Your task to perform on an android device: Add apple airpods pro to the cart on walmart, then select checkout. Image 0: 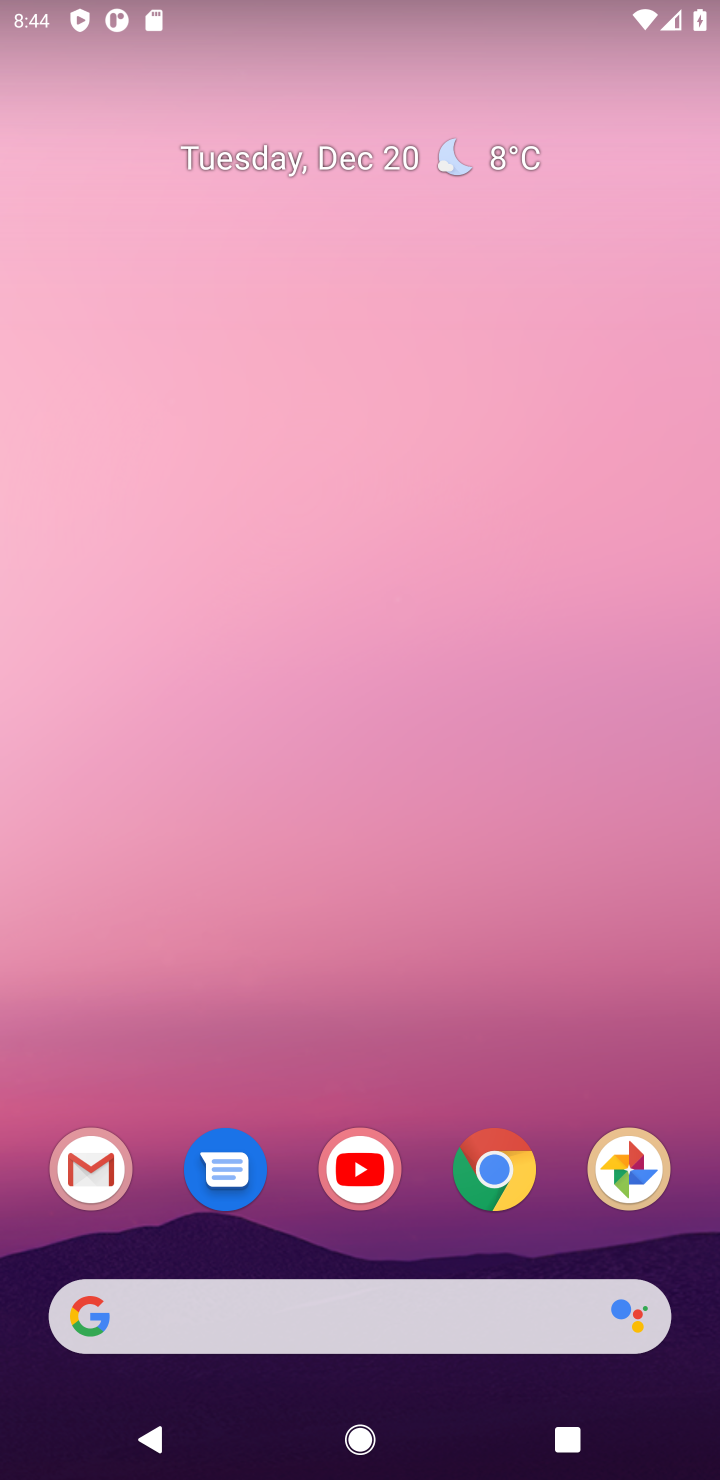
Step 0: click (501, 1146)
Your task to perform on an android device: Add apple airpods pro to the cart on walmart, then select checkout. Image 1: 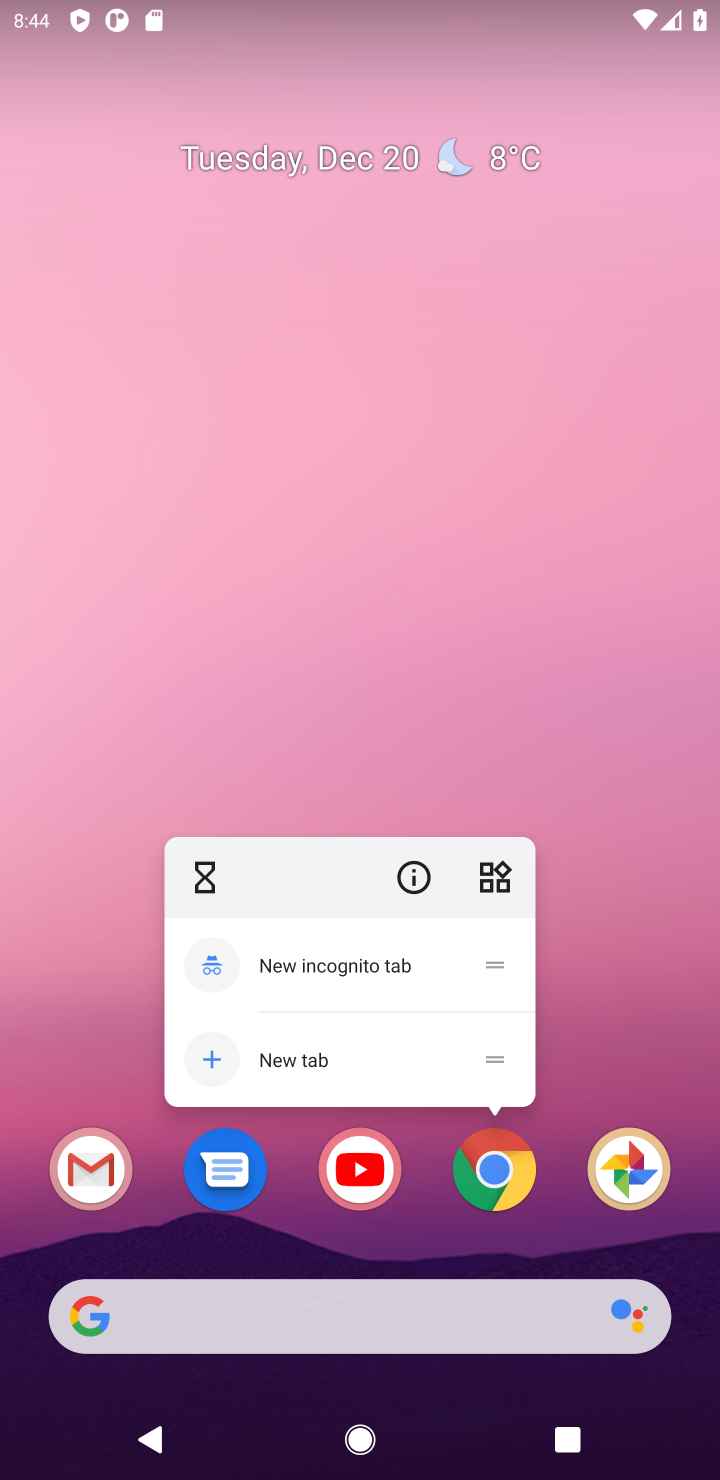
Step 1: click (484, 1200)
Your task to perform on an android device: Add apple airpods pro to the cart on walmart, then select checkout. Image 2: 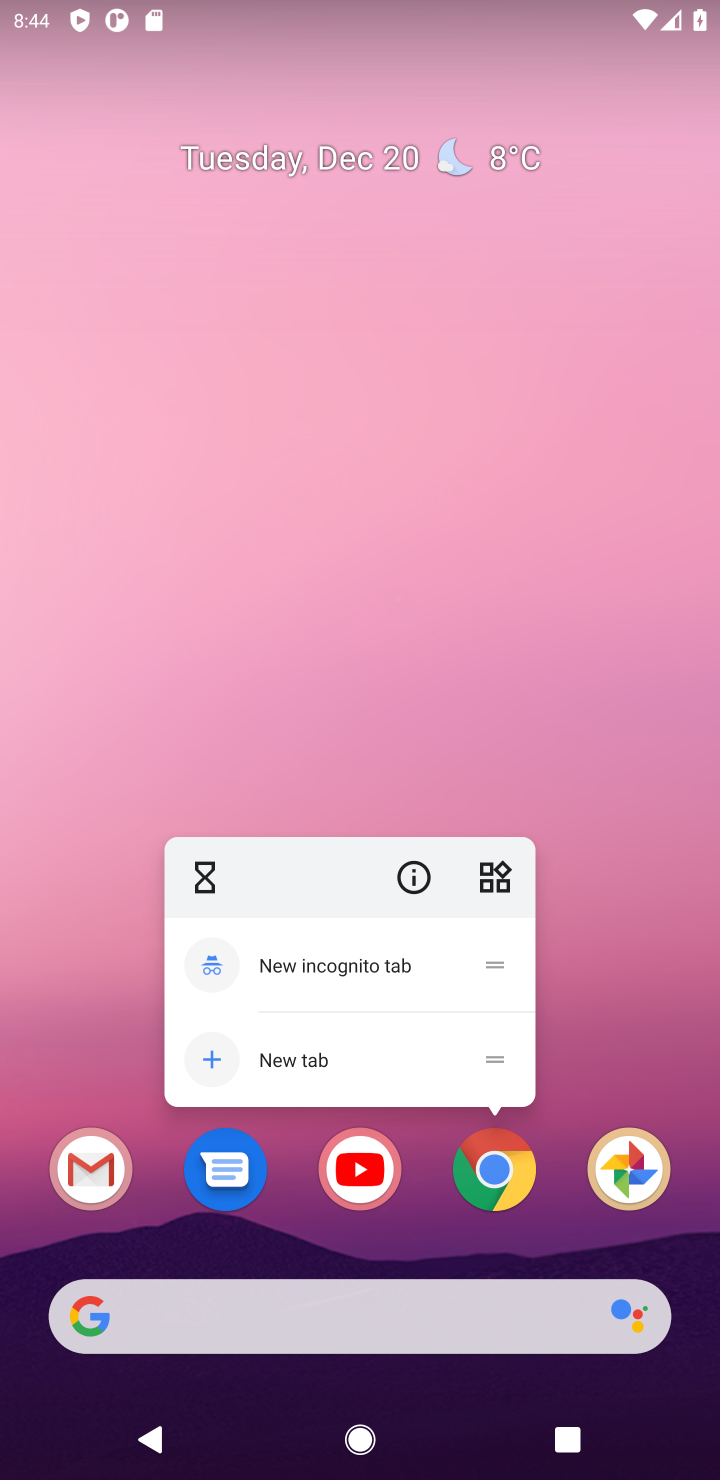
Step 2: click (484, 1200)
Your task to perform on an android device: Add apple airpods pro to the cart on walmart, then select checkout. Image 3: 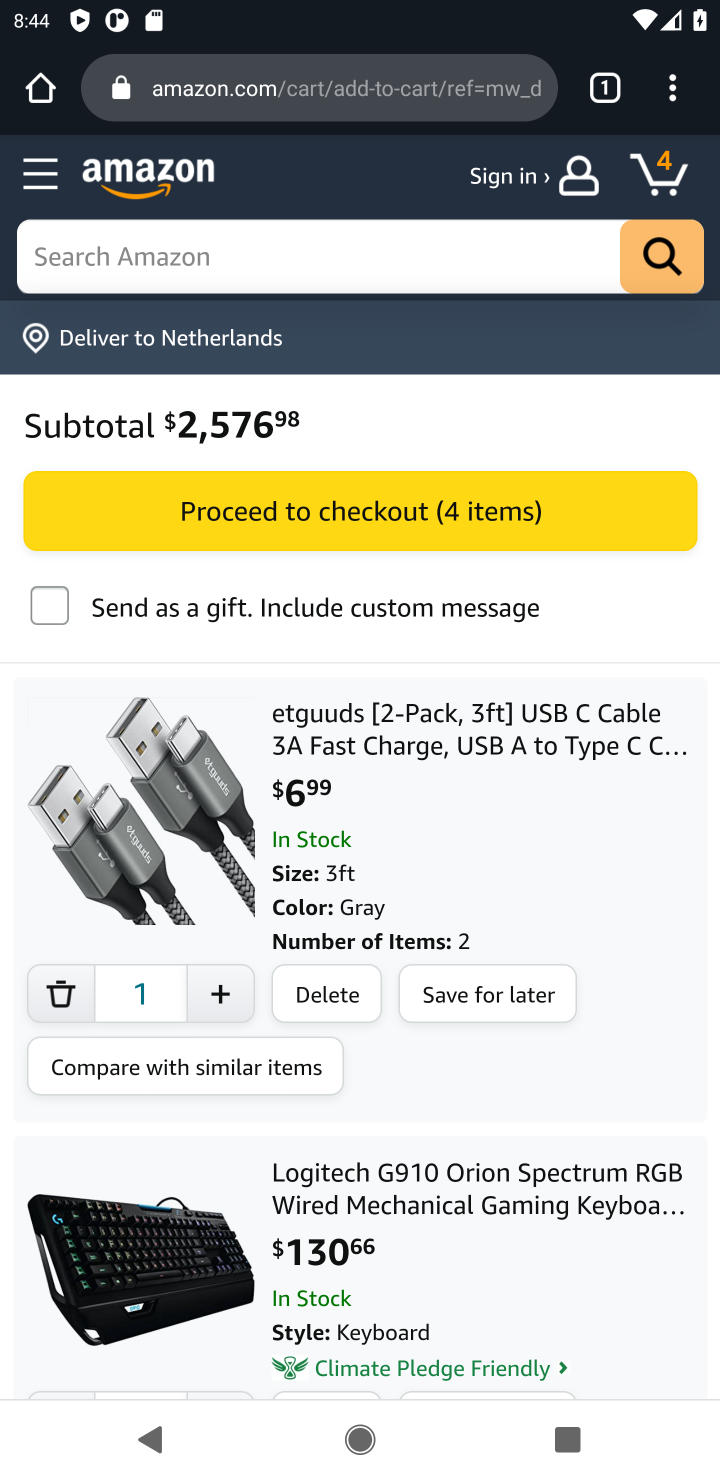
Step 3: click (289, 96)
Your task to perform on an android device: Add apple airpods pro to the cart on walmart, then select checkout. Image 4: 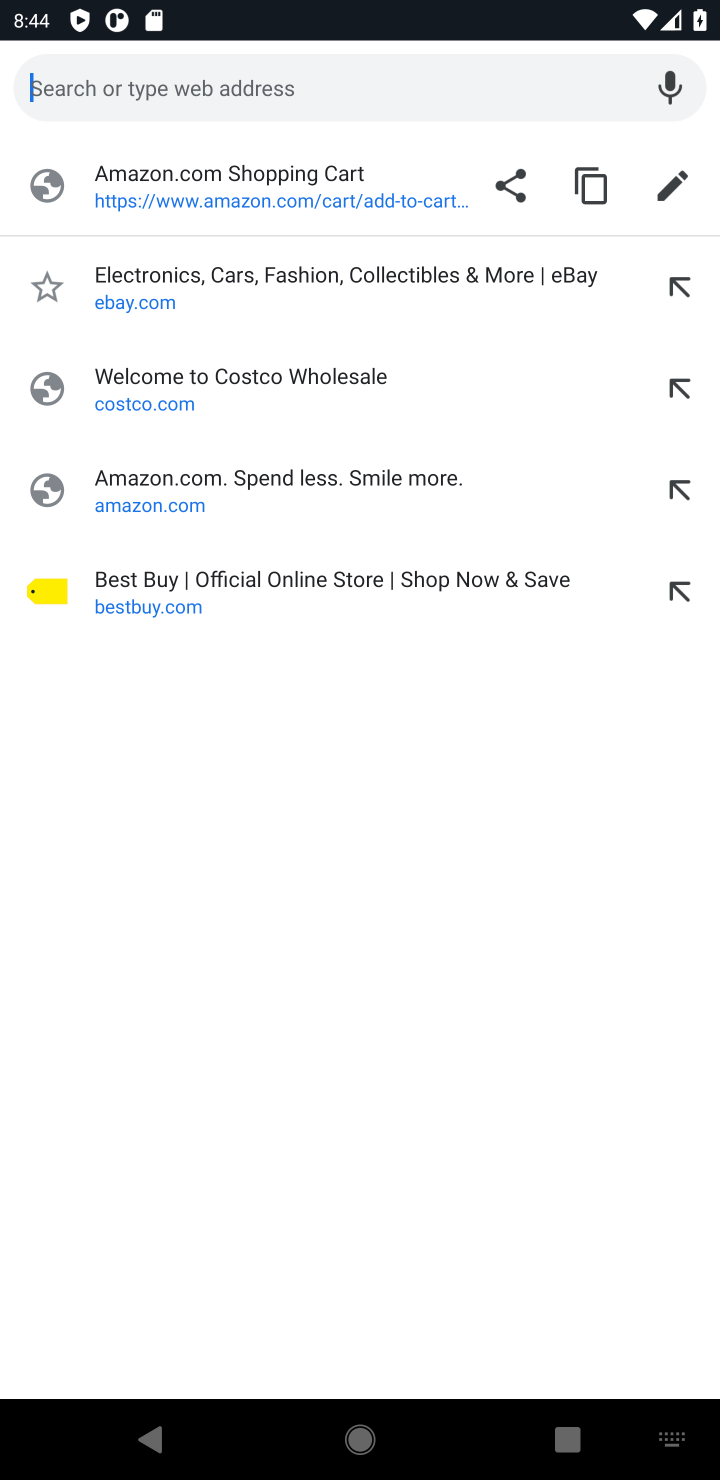
Step 4: type "walmart"
Your task to perform on an android device: Add apple airpods pro to the cart on walmart, then select checkout. Image 5: 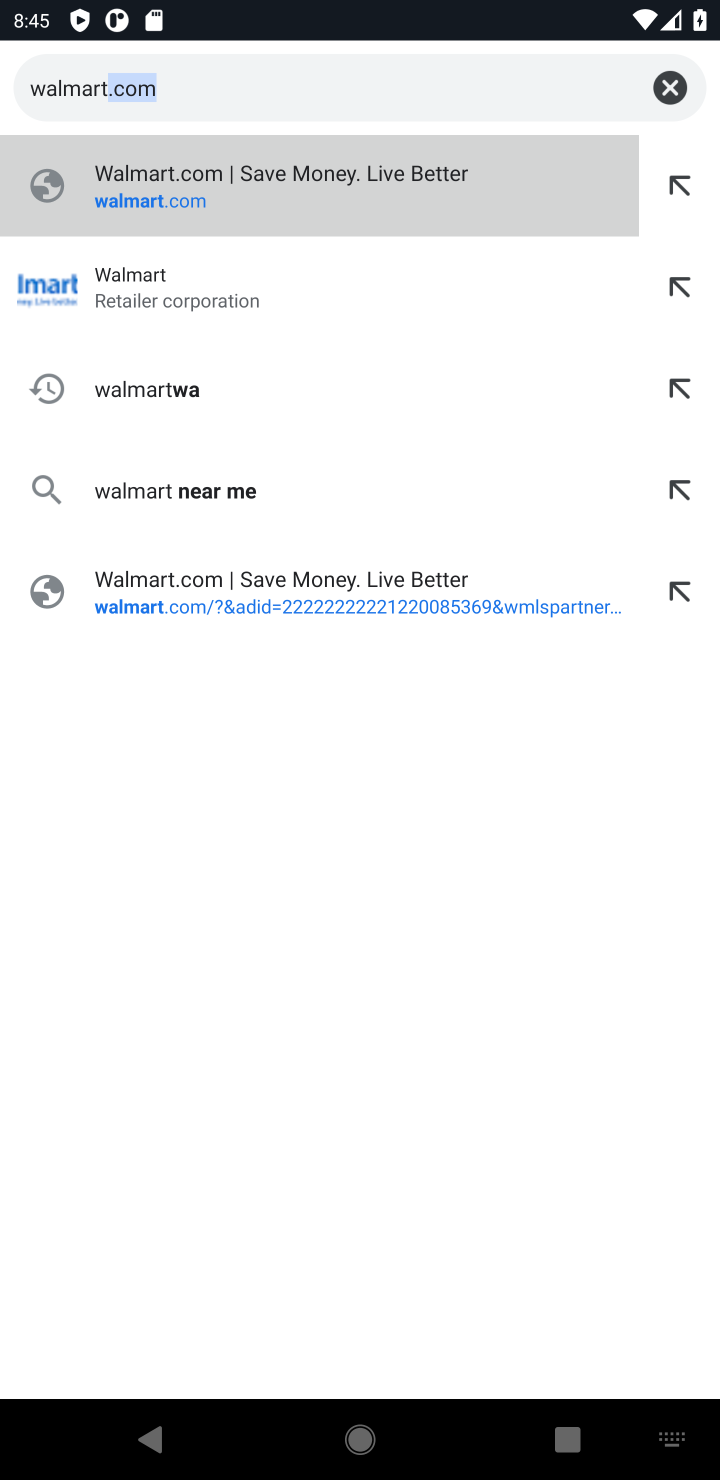
Step 5: click (209, 189)
Your task to perform on an android device: Add apple airpods pro to the cart on walmart, then select checkout. Image 6: 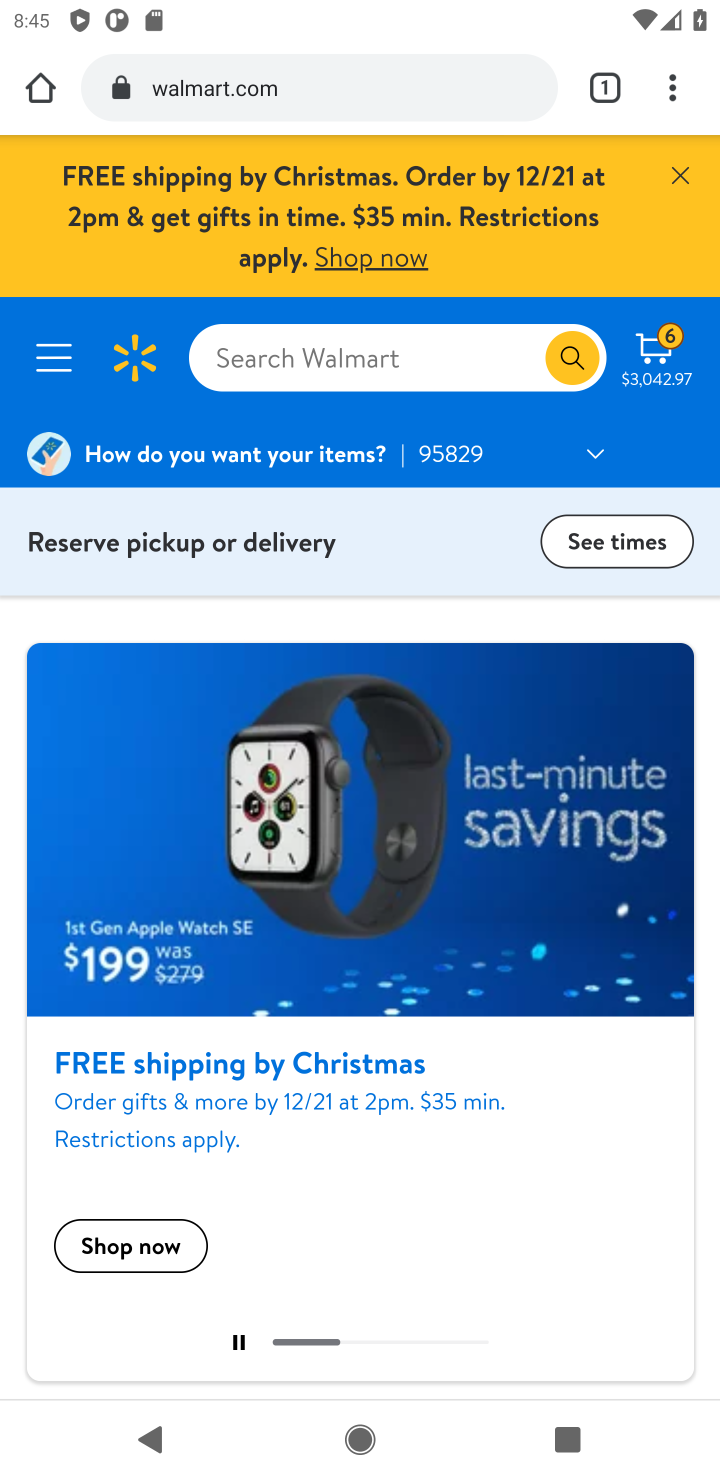
Step 6: click (324, 346)
Your task to perform on an android device: Add apple airpods pro to the cart on walmart, then select checkout. Image 7: 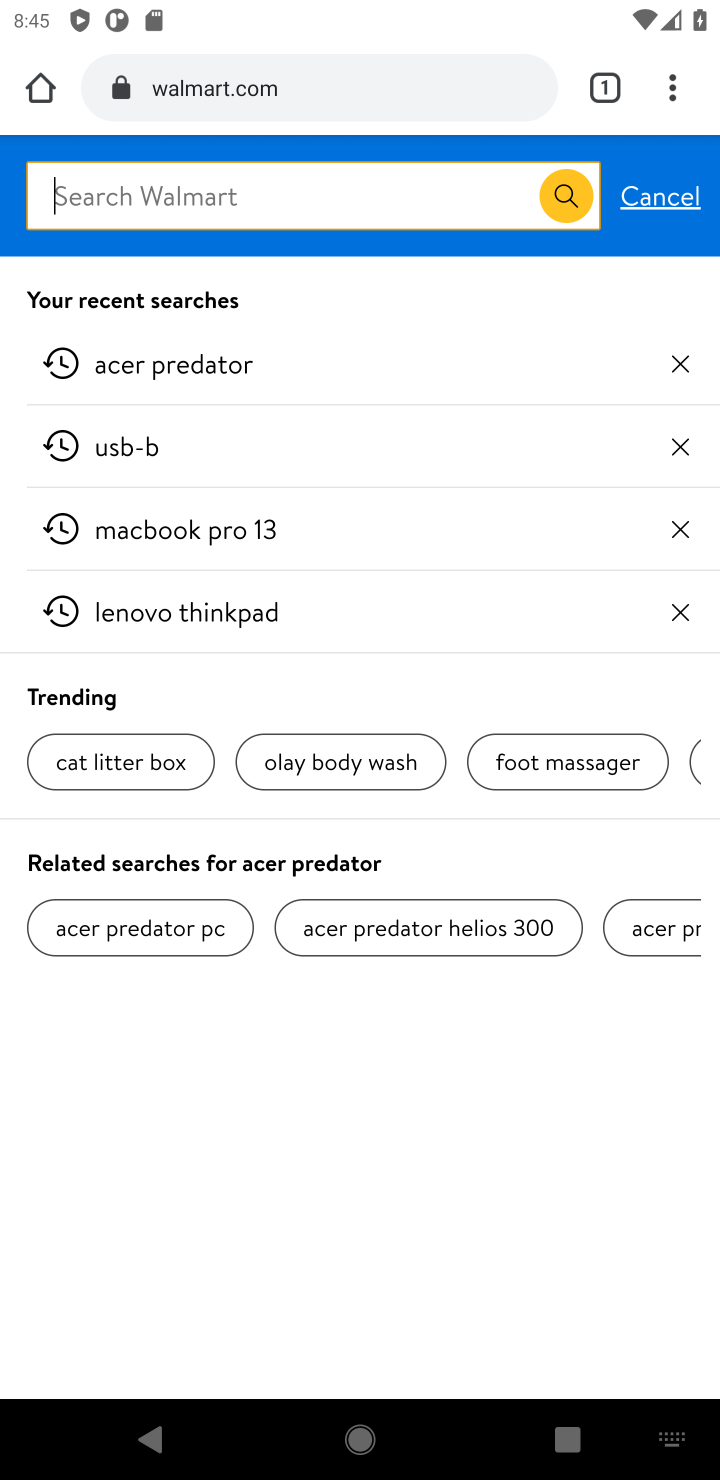
Step 7: type "apple airpod pro"
Your task to perform on an android device: Add apple airpods pro to the cart on walmart, then select checkout. Image 8: 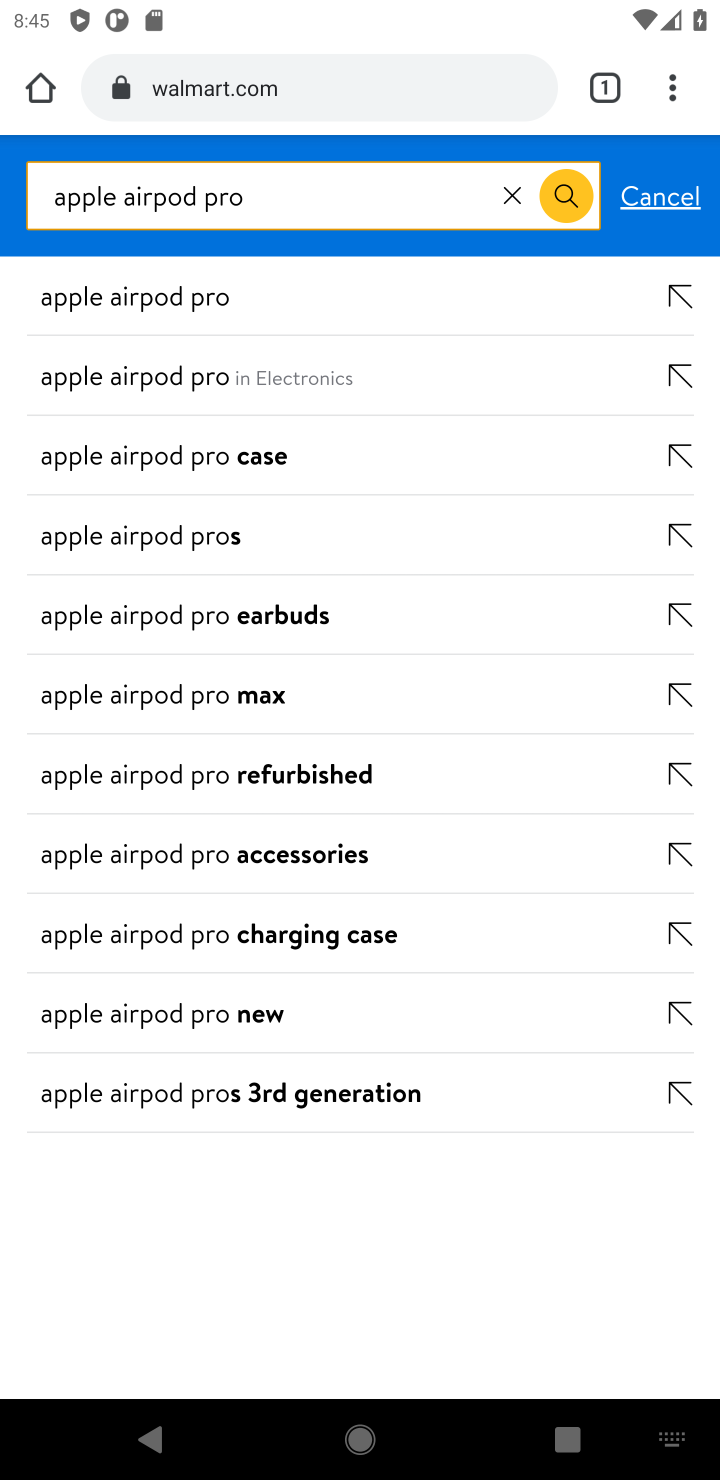
Step 8: click (97, 311)
Your task to perform on an android device: Add apple airpods pro to the cart on walmart, then select checkout. Image 9: 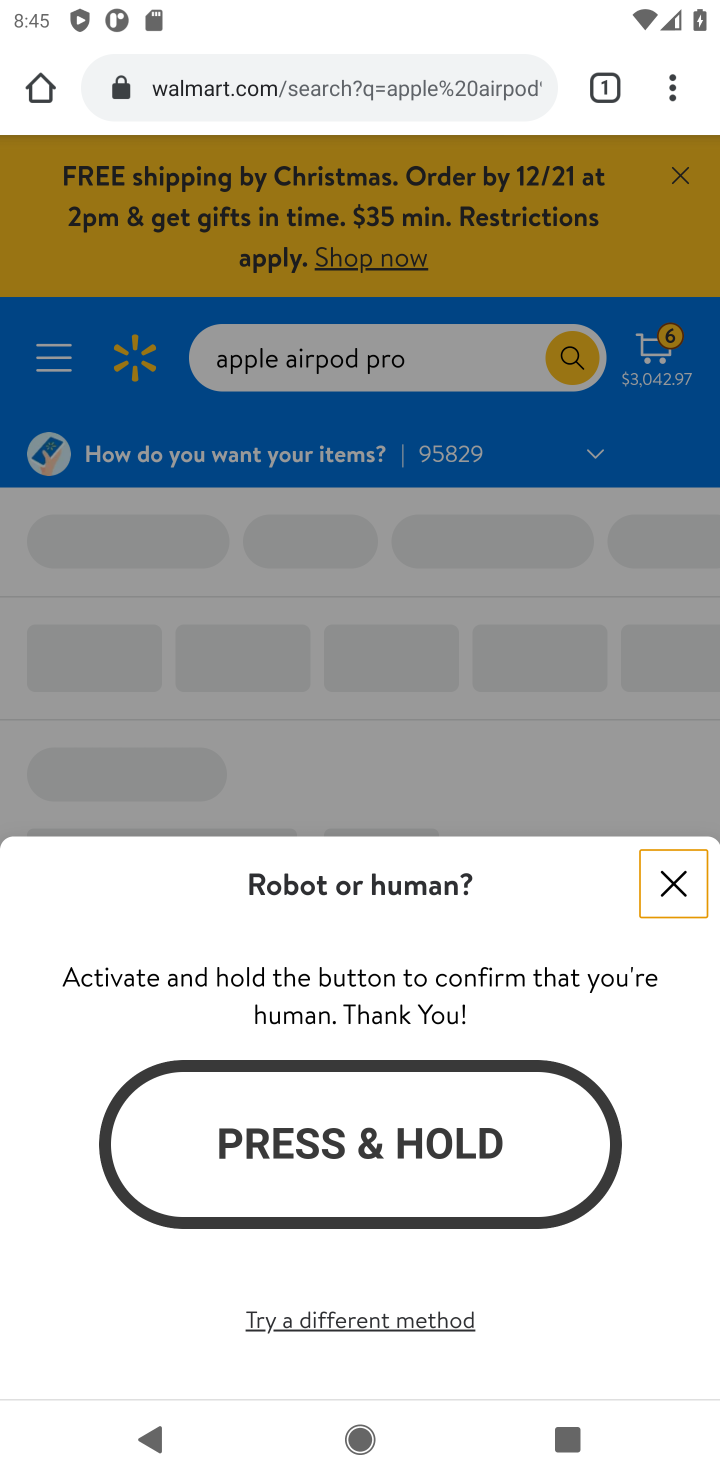
Step 9: click (667, 912)
Your task to perform on an android device: Add apple airpods pro to the cart on walmart, then select checkout. Image 10: 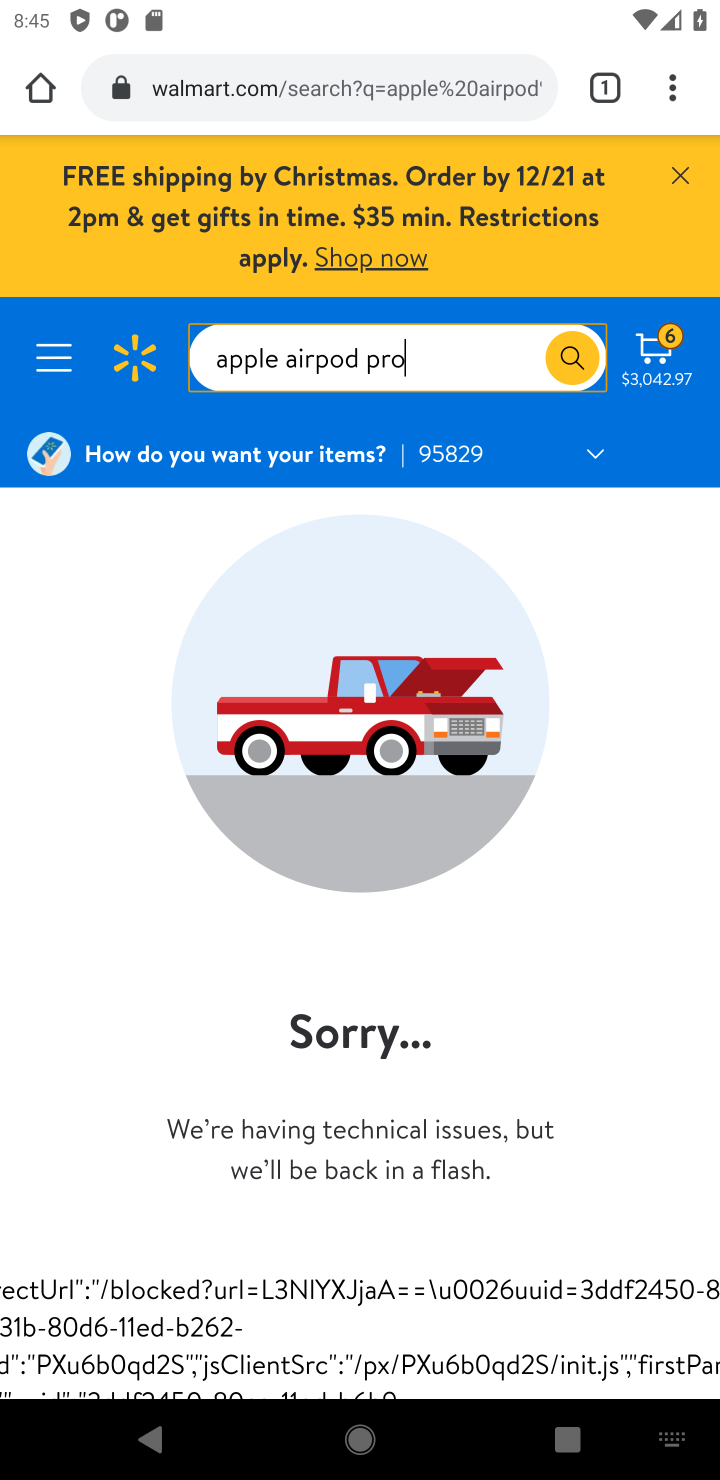
Step 10: task complete